Your task to perform on an android device: Go to settings Image 0: 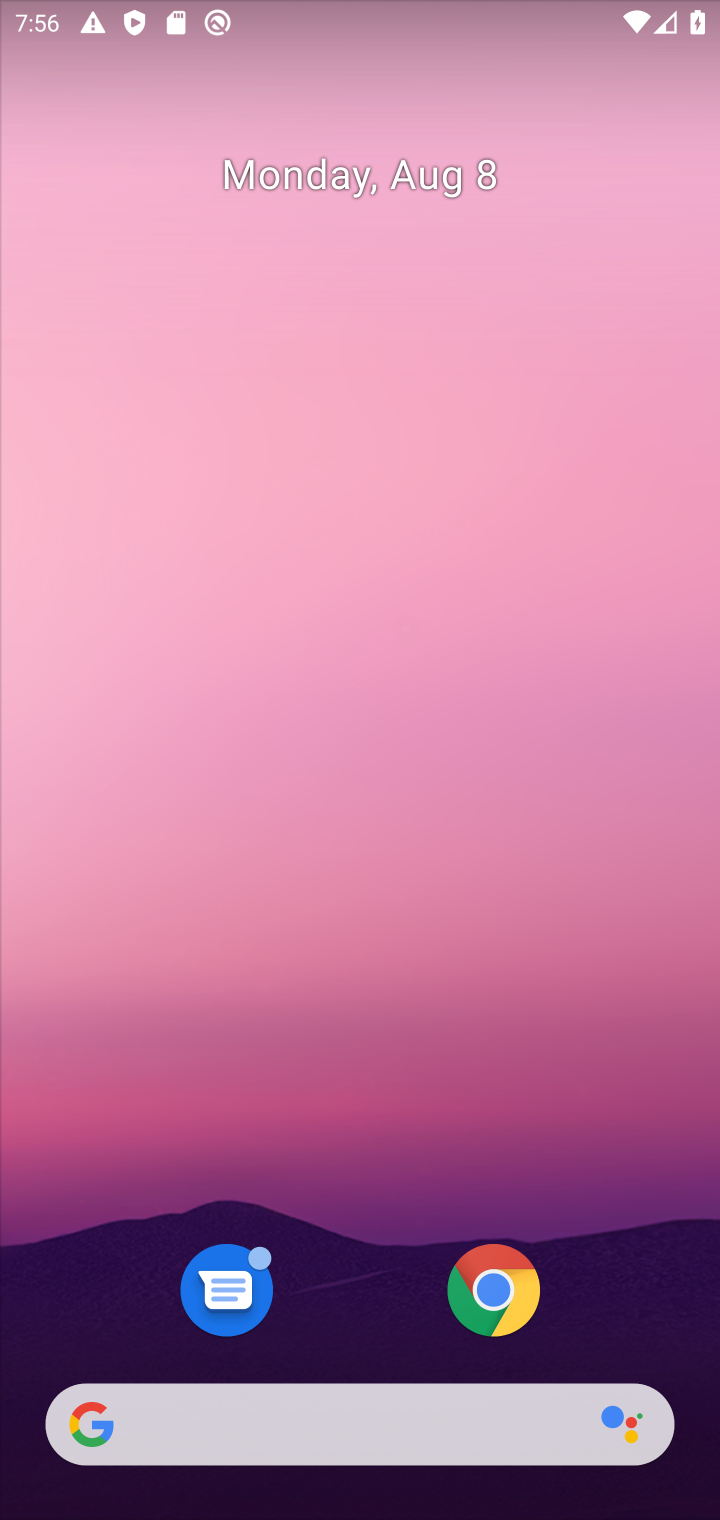
Step 0: drag from (453, 822) to (517, 63)
Your task to perform on an android device: Go to settings Image 1: 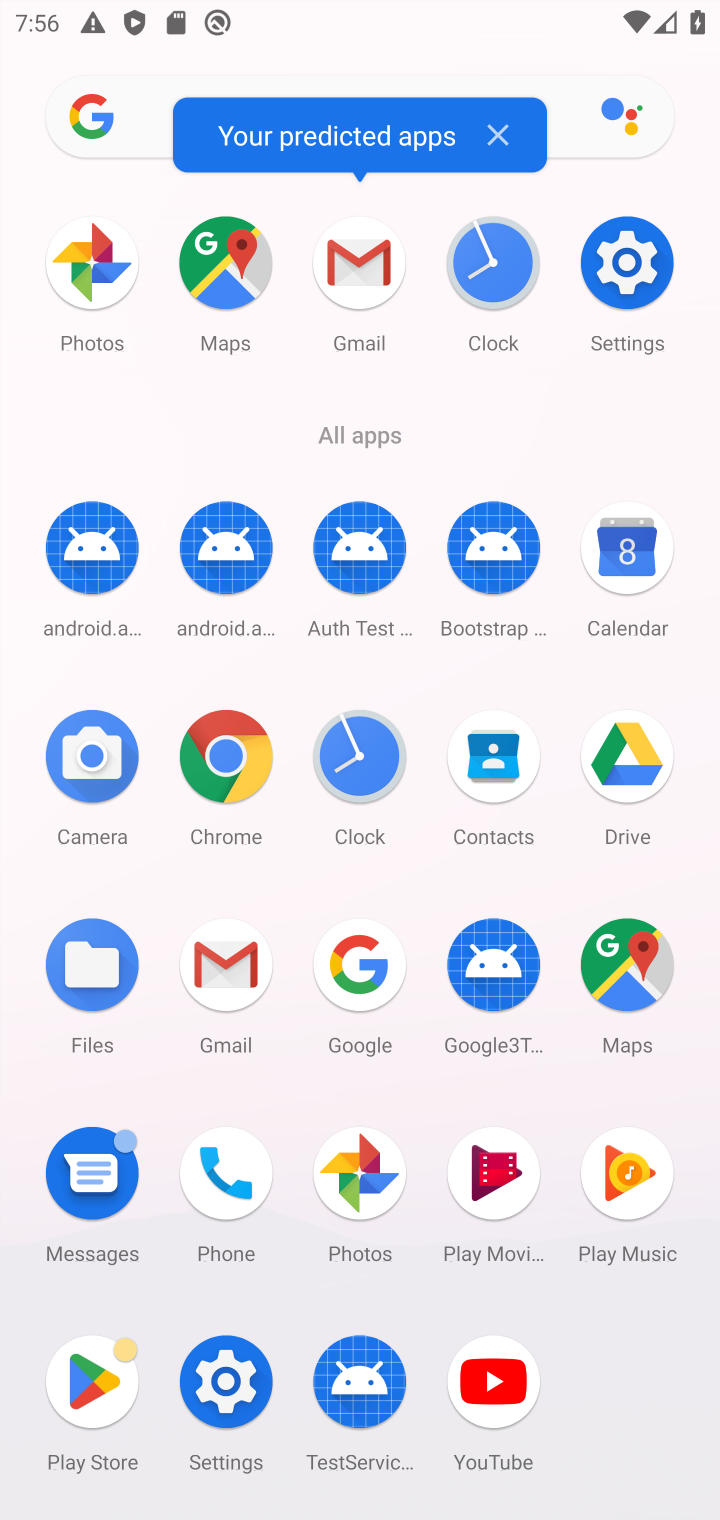
Step 1: click (607, 255)
Your task to perform on an android device: Go to settings Image 2: 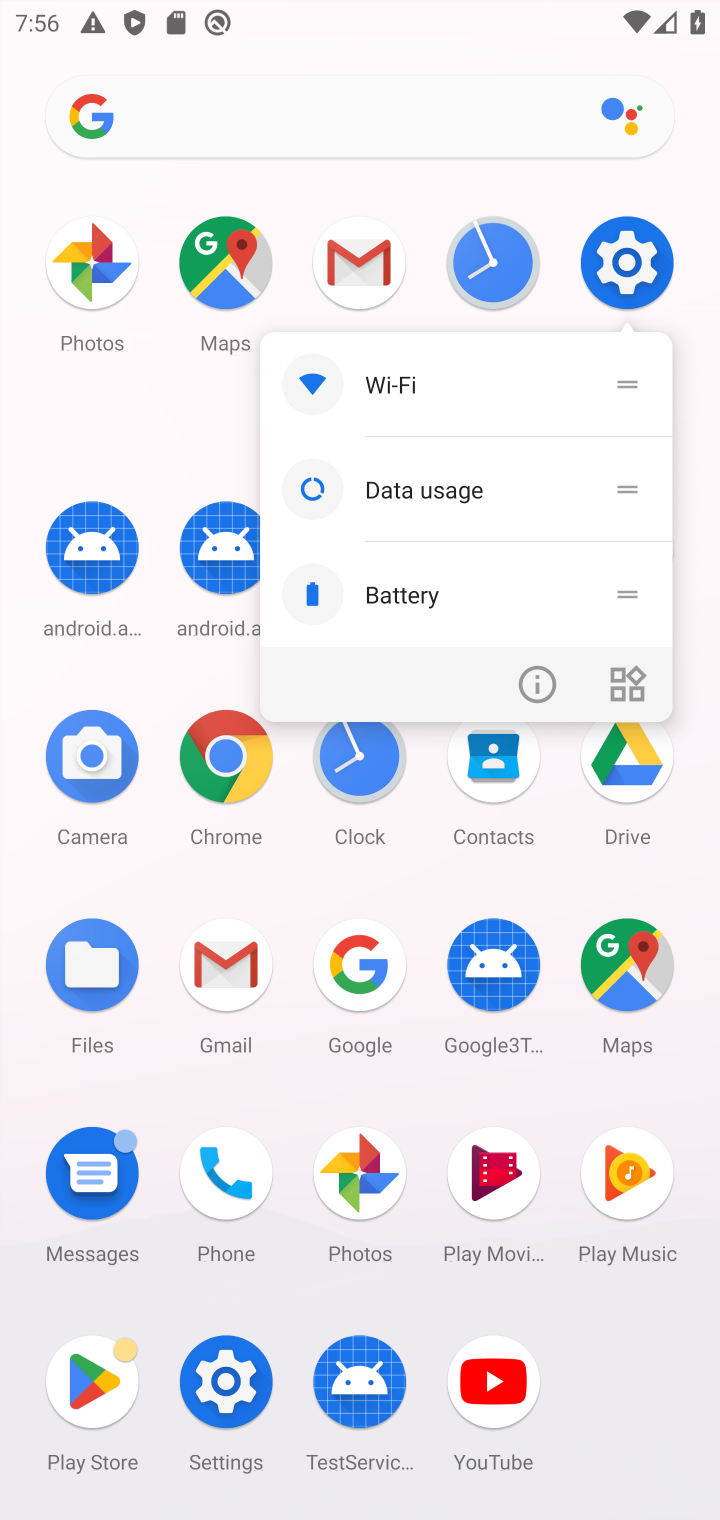
Step 2: click (607, 255)
Your task to perform on an android device: Go to settings Image 3: 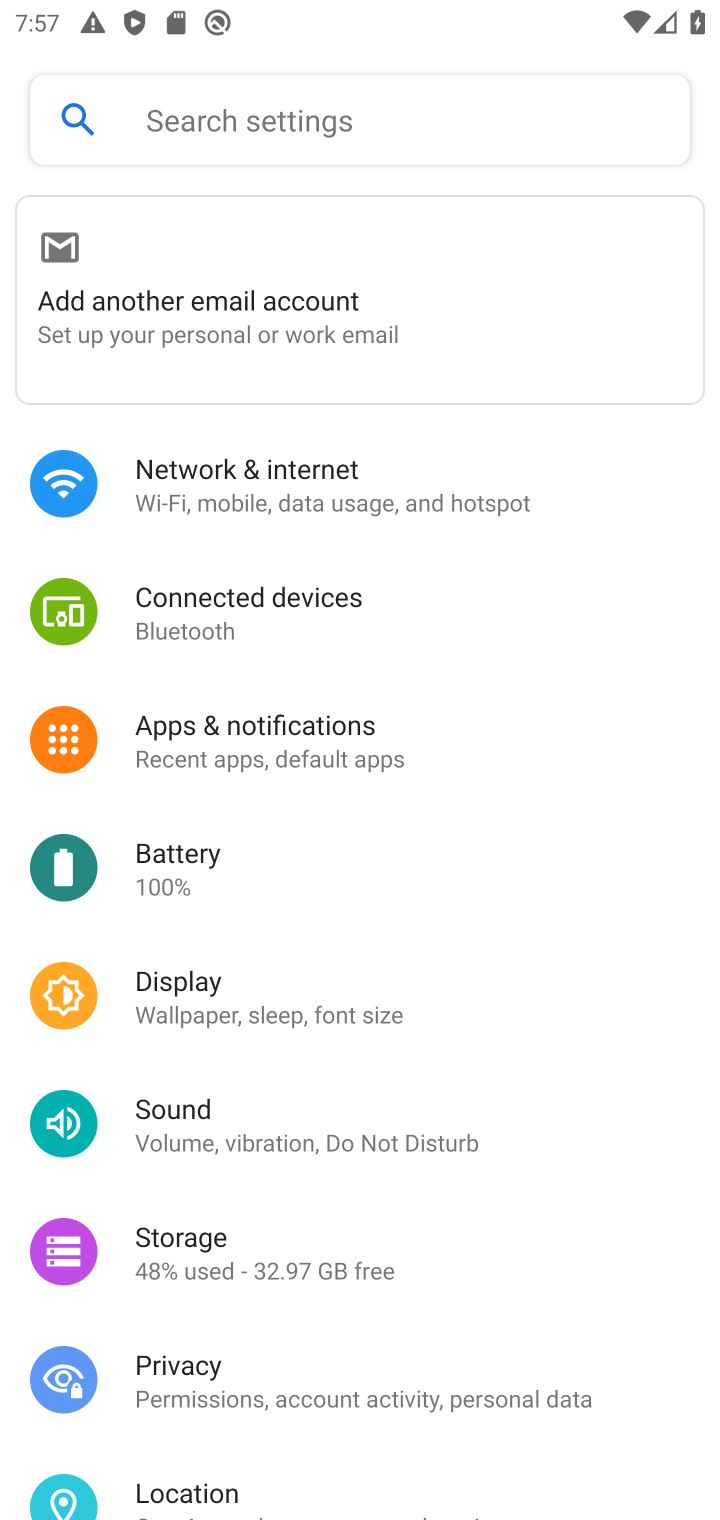
Step 3: task complete